Your task to perform on an android device: Open calendar and show me the first week of next month Image 0: 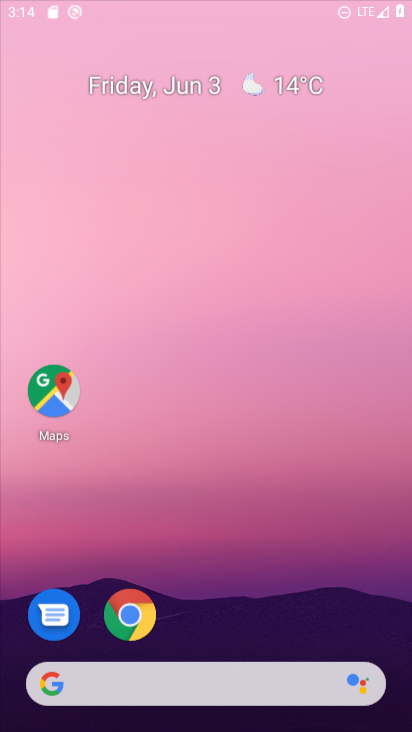
Step 0: click (298, 138)
Your task to perform on an android device: Open calendar and show me the first week of next month Image 1: 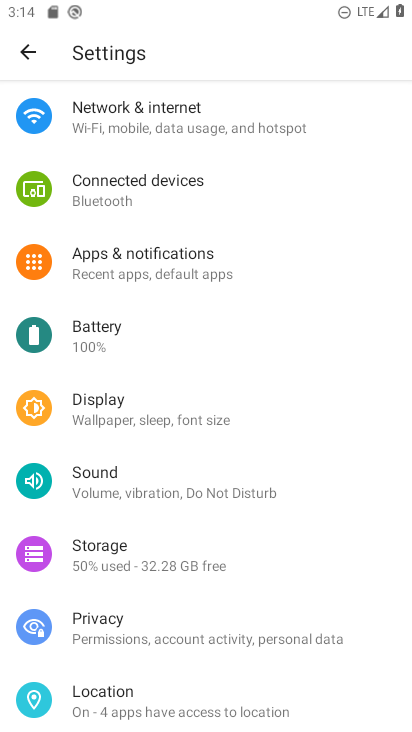
Step 1: press home button
Your task to perform on an android device: Open calendar and show me the first week of next month Image 2: 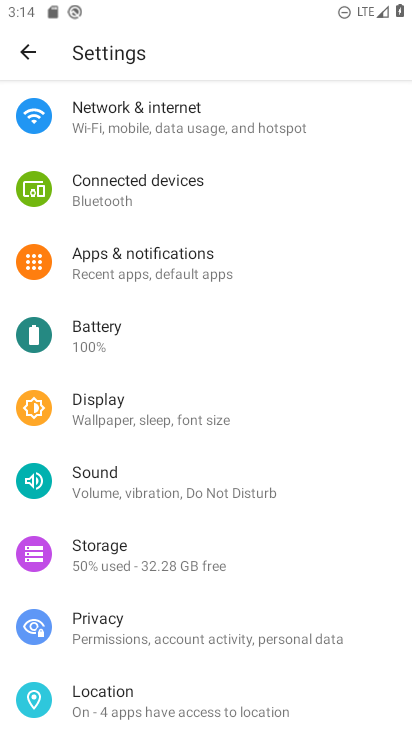
Step 2: click (225, 2)
Your task to perform on an android device: Open calendar and show me the first week of next month Image 3: 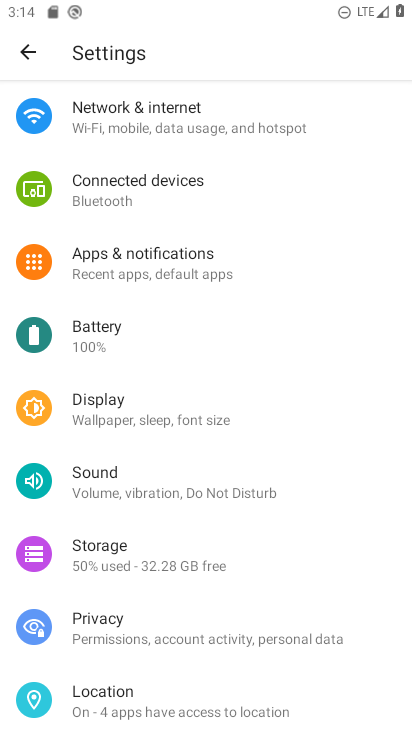
Step 3: drag from (205, 595) to (285, 134)
Your task to perform on an android device: Open calendar and show me the first week of next month Image 4: 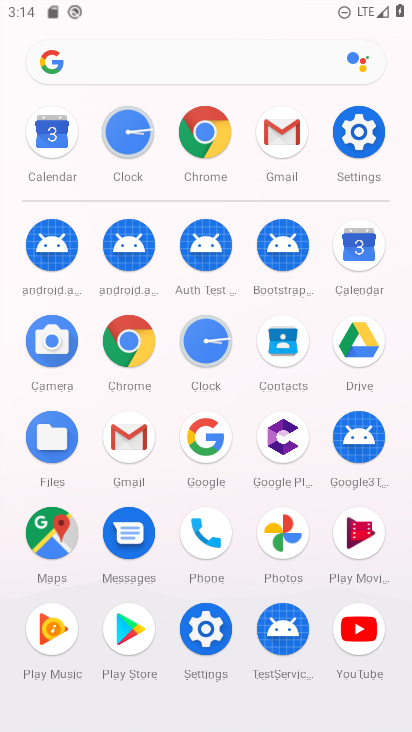
Step 4: click (352, 257)
Your task to perform on an android device: Open calendar and show me the first week of next month Image 5: 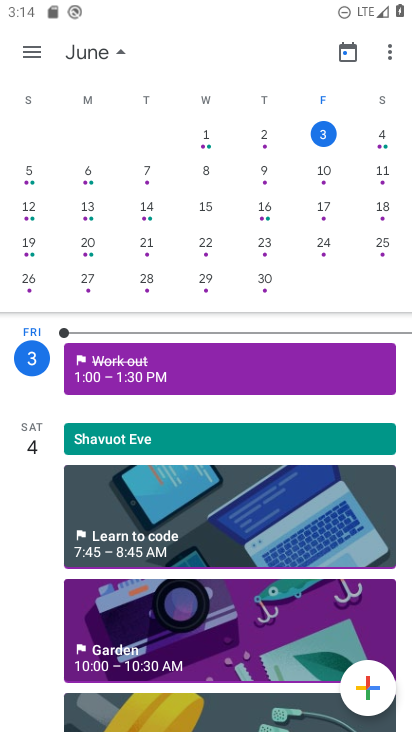
Step 5: click (105, 40)
Your task to perform on an android device: Open calendar and show me the first week of next month Image 6: 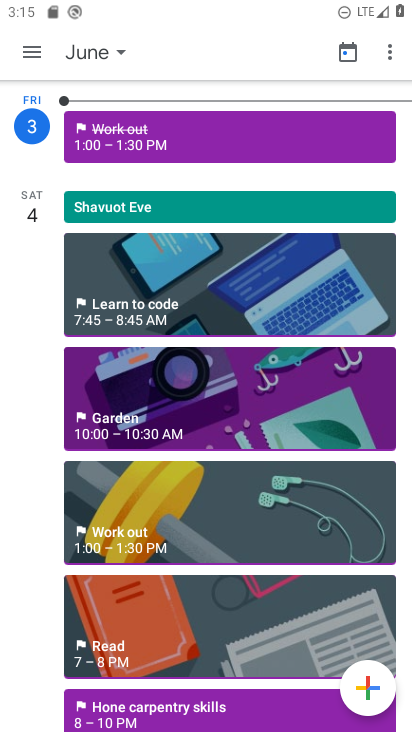
Step 6: click (105, 40)
Your task to perform on an android device: Open calendar and show me the first week of next month Image 7: 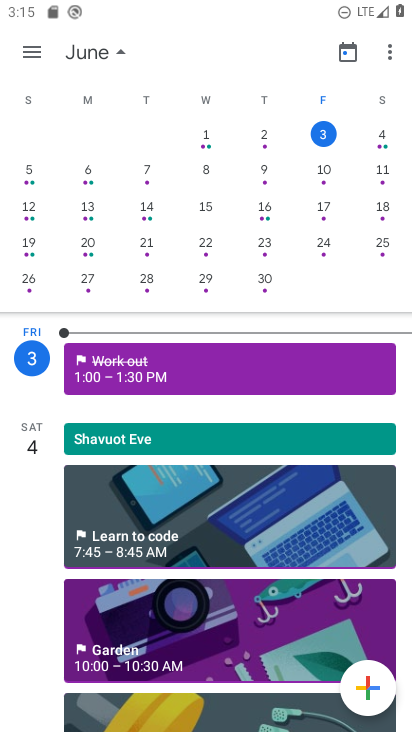
Step 7: drag from (360, 194) to (18, 176)
Your task to perform on an android device: Open calendar and show me the first week of next month Image 8: 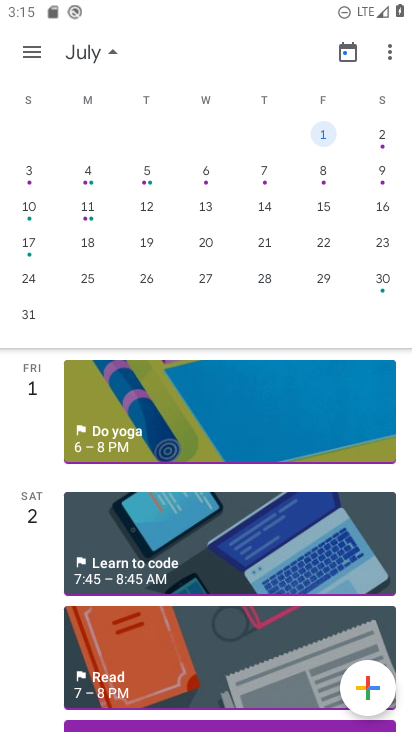
Step 8: click (380, 133)
Your task to perform on an android device: Open calendar and show me the first week of next month Image 9: 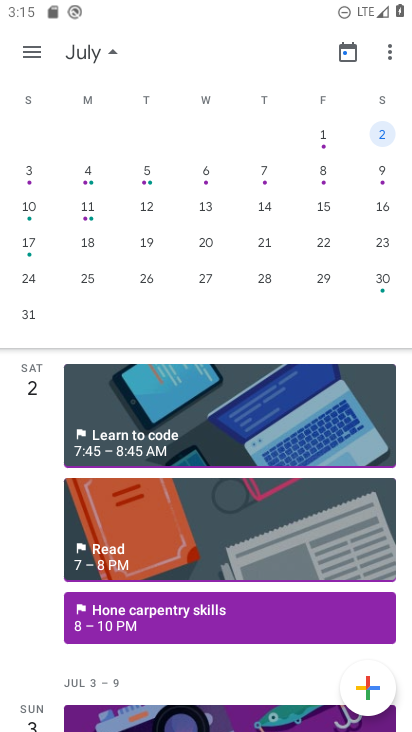
Step 9: task complete